Your task to perform on an android device: Do I have any events tomorrow? Image 0: 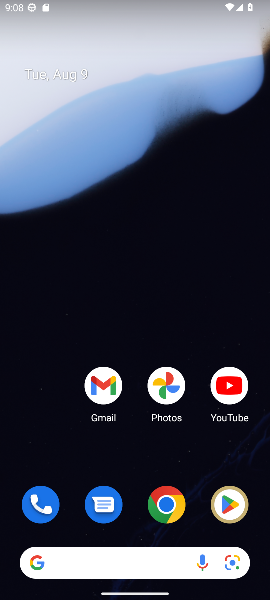
Step 0: drag from (139, 530) to (99, 2)
Your task to perform on an android device: Do I have any events tomorrow? Image 1: 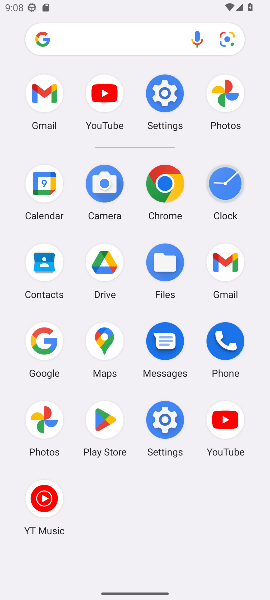
Step 1: click (41, 179)
Your task to perform on an android device: Do I have any events tomorrow? Image 2: 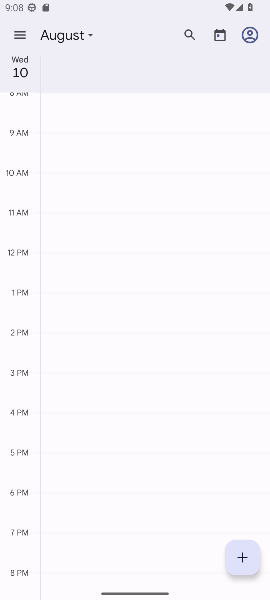
Step 2: task complete